Your task to perform on an android device: Check the weather Image 0: 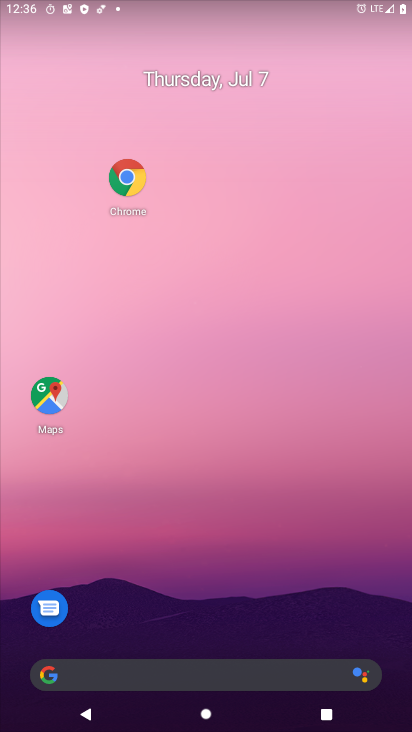
Step 0: drag from (185, 649) to (217, 206)
Your task to perform on an android device: Check the weather Image 1: 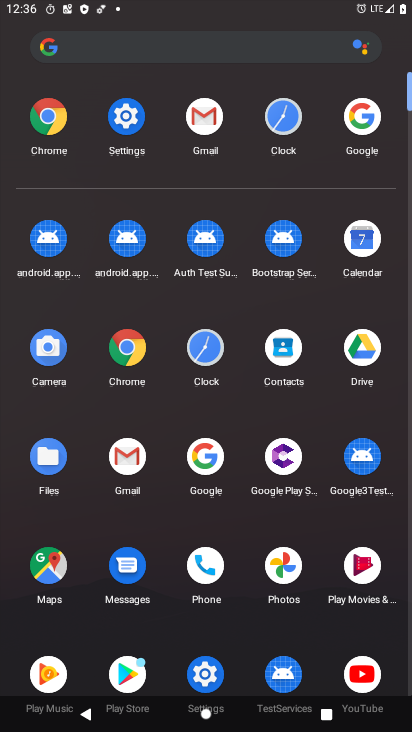
Step 1: click (195, 461)
Your task to perform on an android device: Check the weather Image 2: 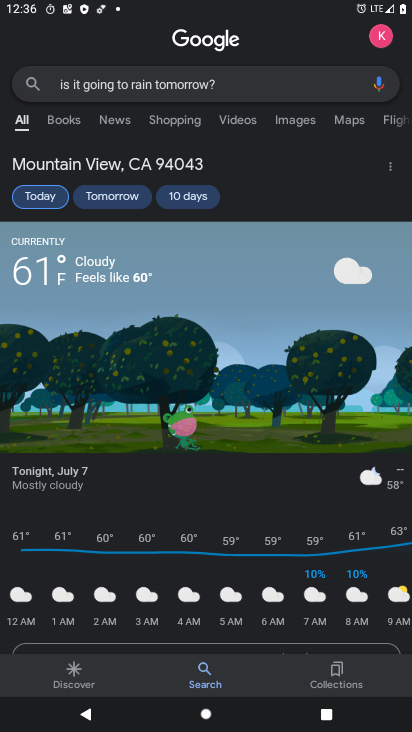
Step 2: task complete